Your task to perform on an android device: turn off data saver in the chrome app Image 0: 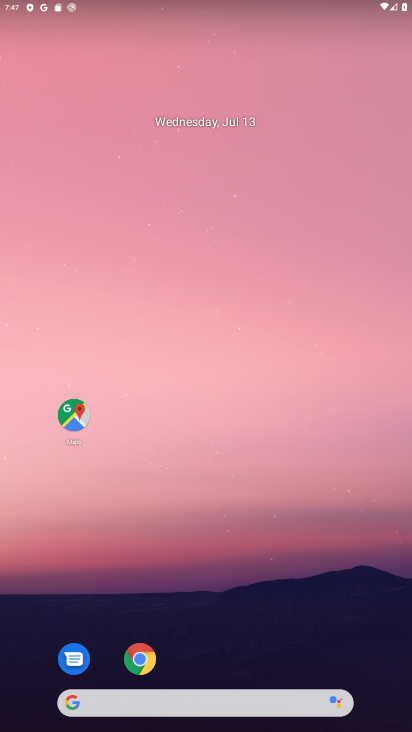
Step 0: click (131, 652)
Your task to perform on an android device: turn off data saver in the chrome app Image 1: 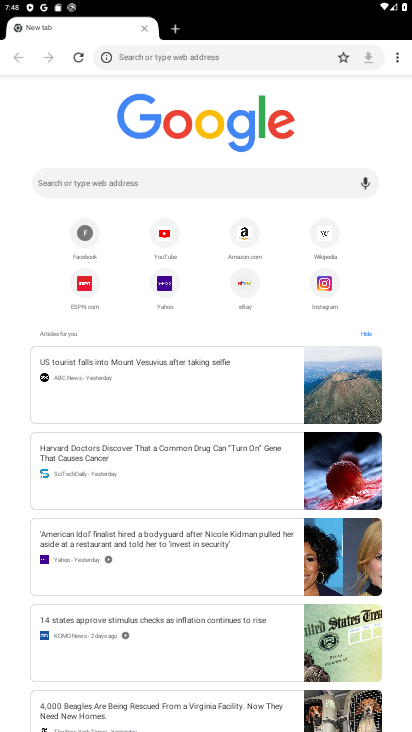
Step 1: click (399, 69)
Your task to perform on an android device: turn off data saver in the chrome app Image 2: 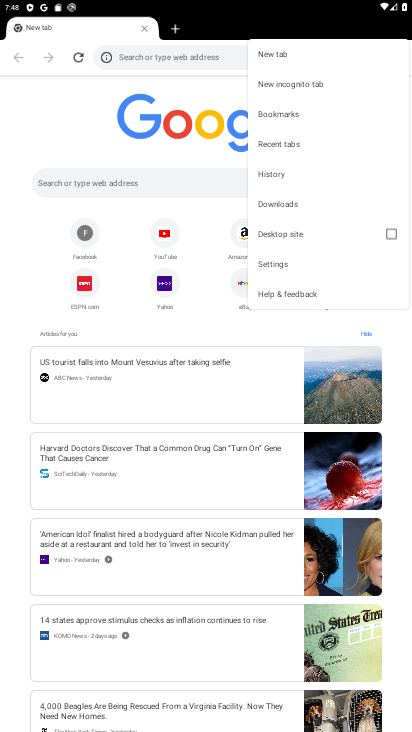
Step 2: click (296, 262)
Your task to perform on an android device: turn off data saver in the chrome app Image 3: 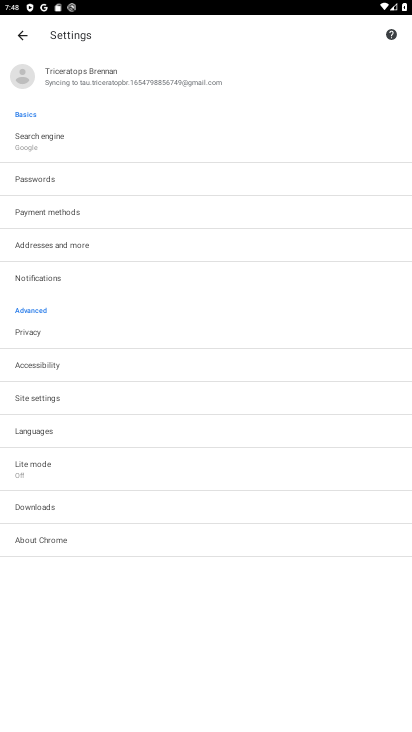
Step 3: click (198, 468)
Your task to perform on an android device: turn off data saver in the chrome app Image 4: 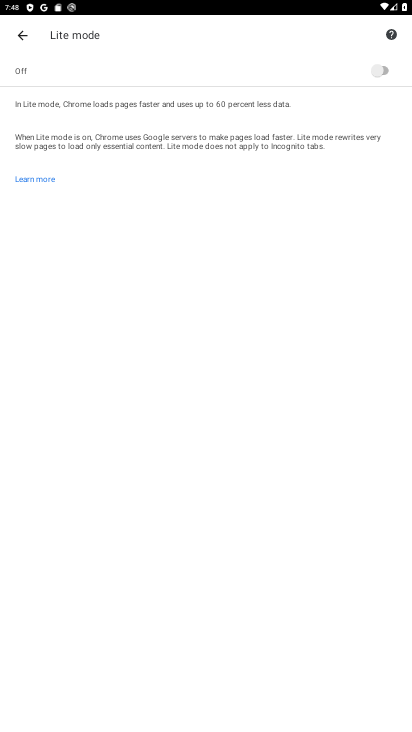
Step 4: click (362, 61)
Your task to perform on an android device: turn off data saver in the chrome app Image 5: 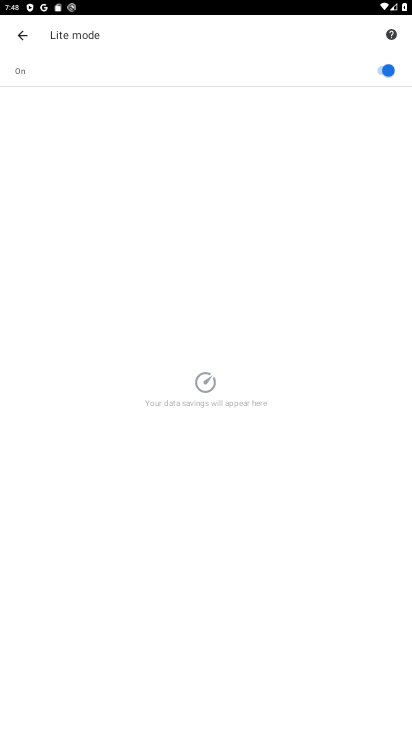
Step 5: task complete